Your task to perform on an android device: set the timer Image 0: 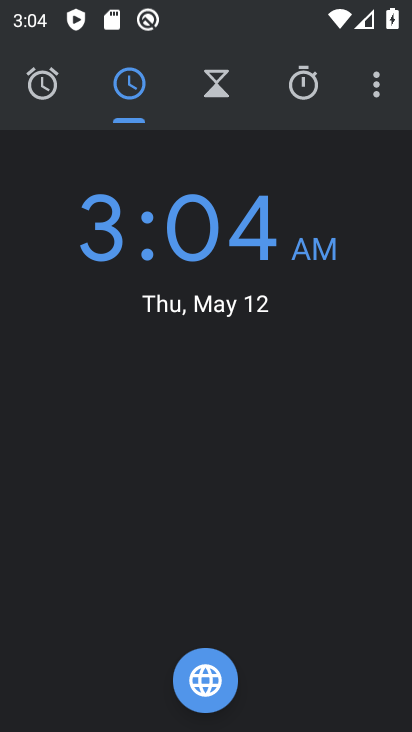
Step 0: click (218, 106)
Your task to perform on an android device: set the timer Image 1: 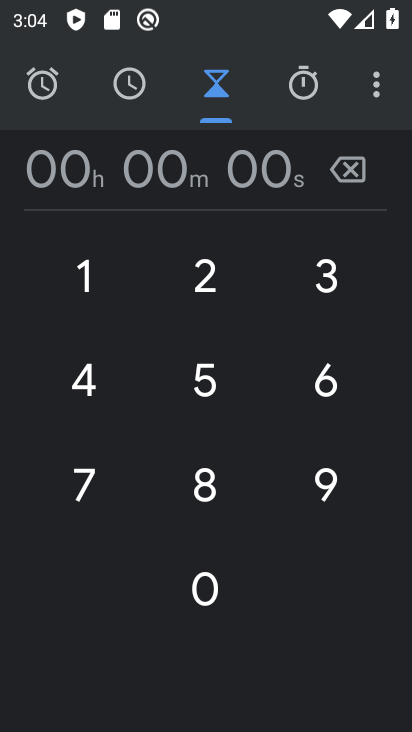
Step 1: click (86, 278)
Your task to perform on an android device: set the timer Image 2: 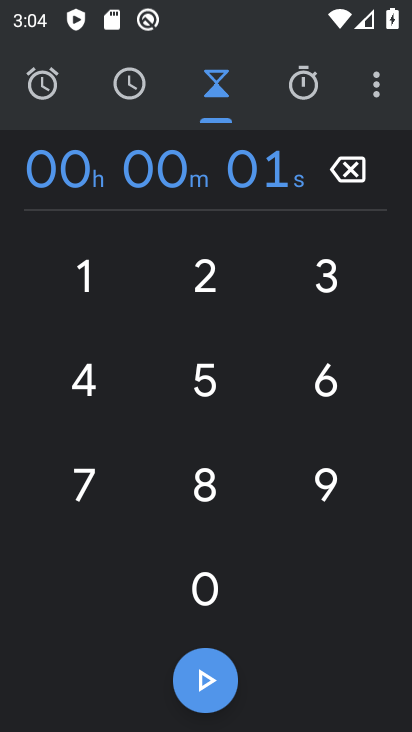
Step 2: click (86, 278)
Your task to perform on an android device: set the timer Image 3: 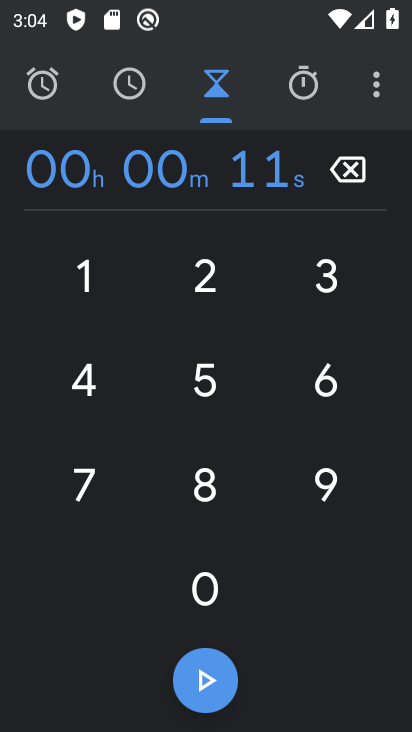
Step 3: click (86, 278)
Your task to perform on an android device: set the timer Image 4: 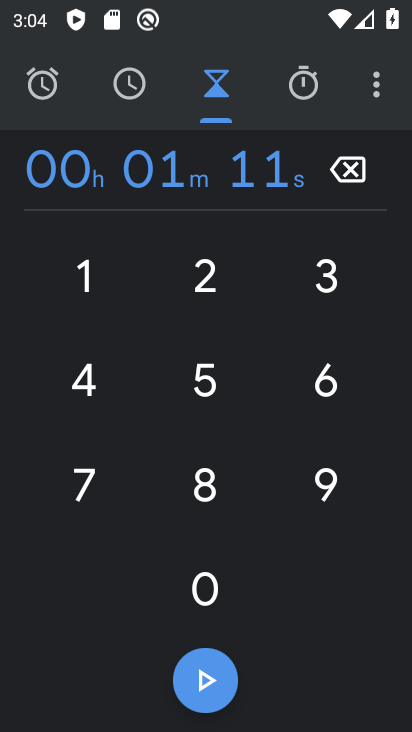
Step 4: click (86, 278)
Your task to perform on an android device: set the timer Image 5: 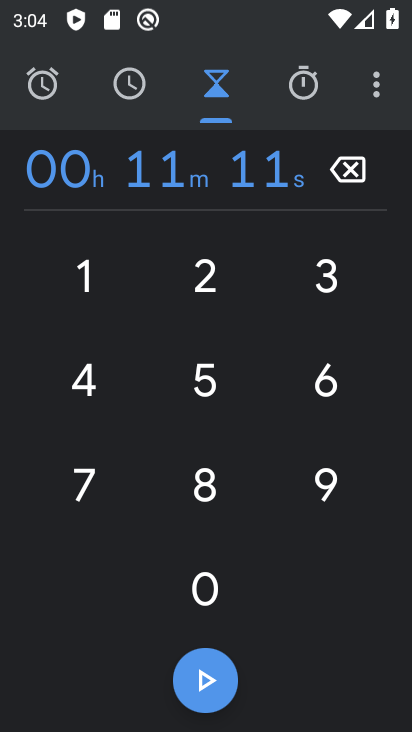
Step 5: click (86, 278)
Your task to perform on an android device: set the timer Image 6: 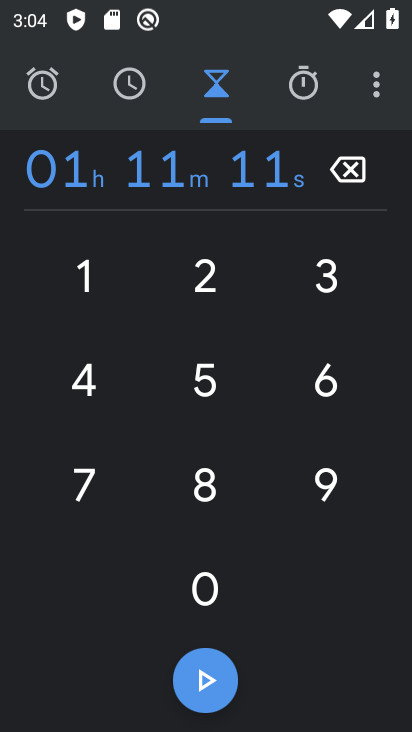
Step 6: click (86, 278)
Your task to perform on an android device: set the timer Image 7: 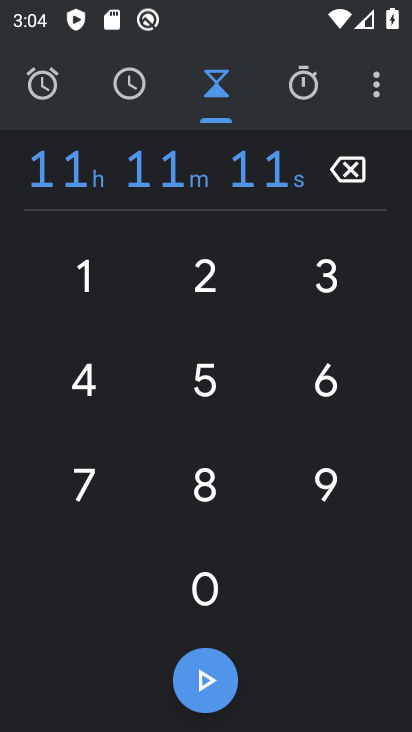
Step 7: click (225, 703)
Your task to perform on an android device: set the timer Image 8: 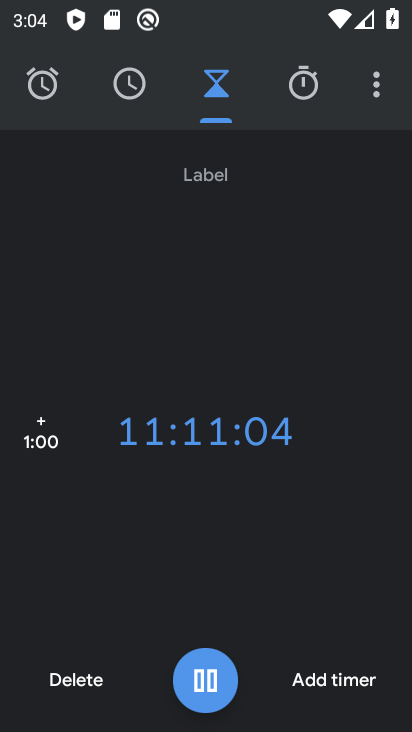
Step 8: task complete